Your task to perform on an android device: Open the web browser Image 0: 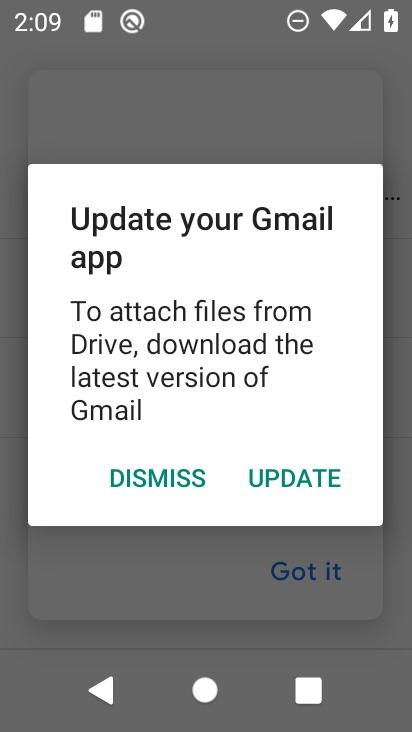
Step 0: press home button
Your task to perform on an android device: Open the web browser Image 1: 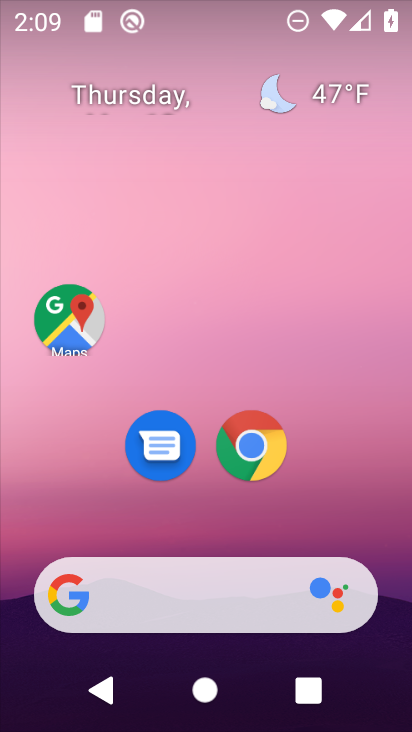
Step 1: click (238, 440)
Your task to perform on an android device: Open the web browser Image 2: 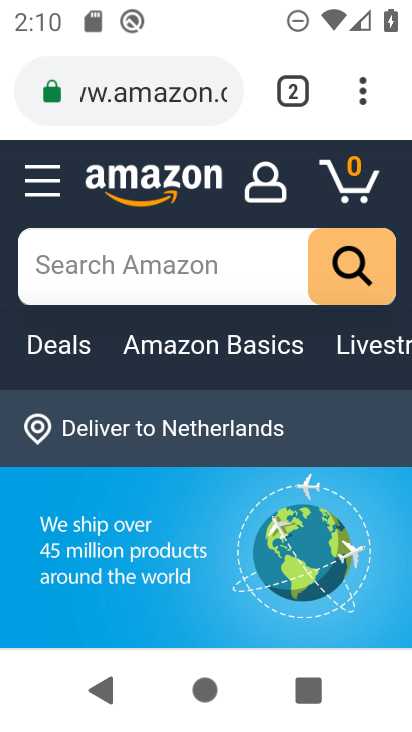
Step 2: task complete